Your task to perform on an android device: open app "Nova Launcher" (install if not already installed) and go to login screen Image 0: 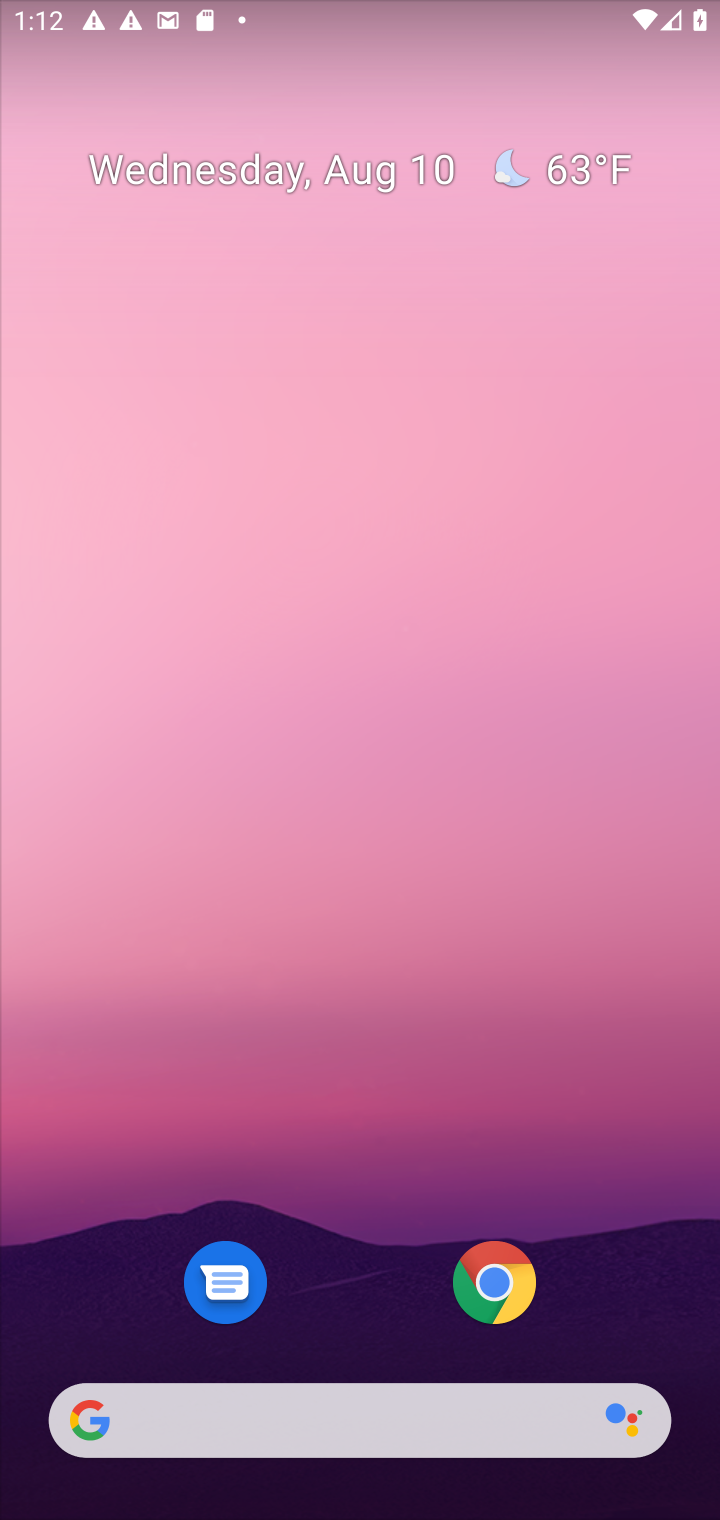
Step 0: drag from (314, 1268) to (389, 313)
Your task to perform on an android device: open app "Nova Launcher" (install if not already installed) and go to login screen Image 1: 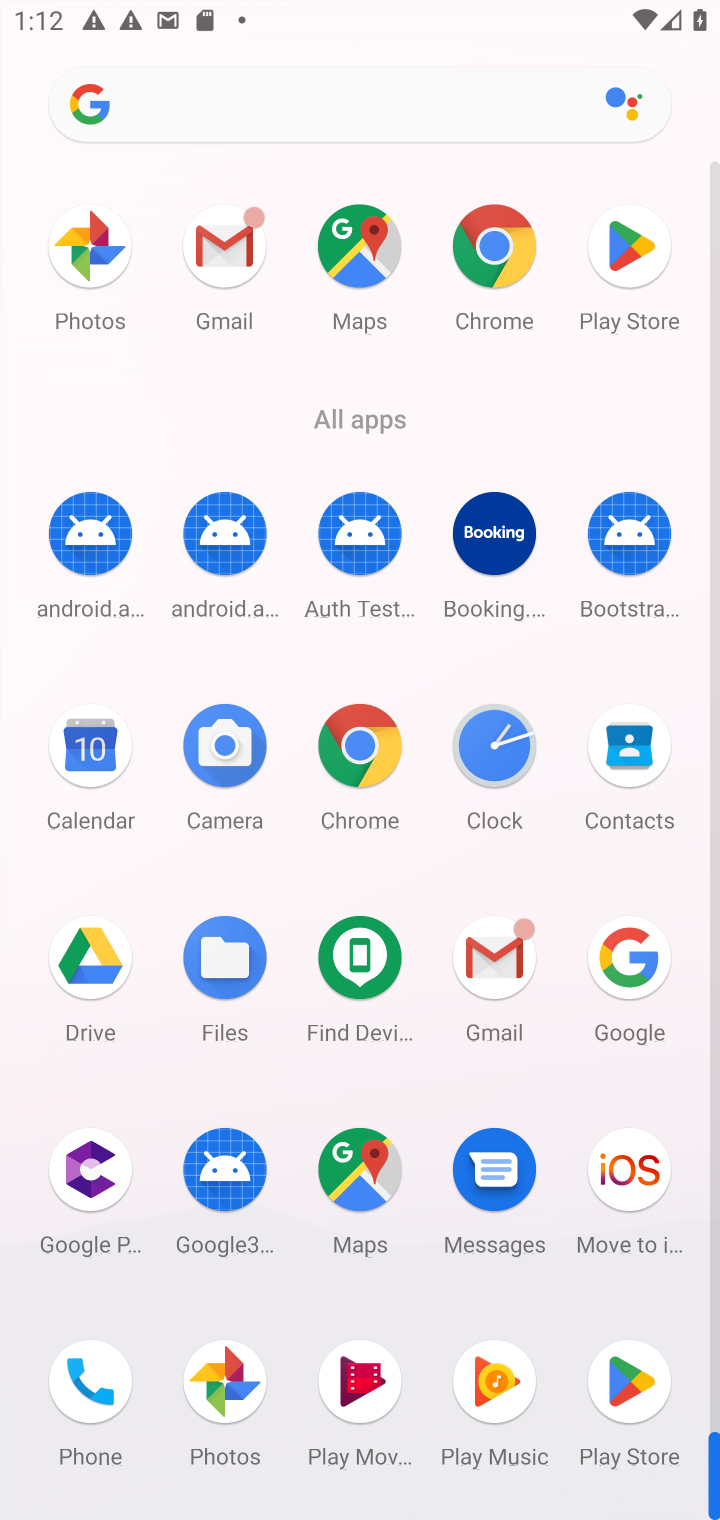
Step 1: click (635, 1364)
Your task to perform on an android device: open app "Nova Launcher" (install if not already installed) and go to login screen Image 2: 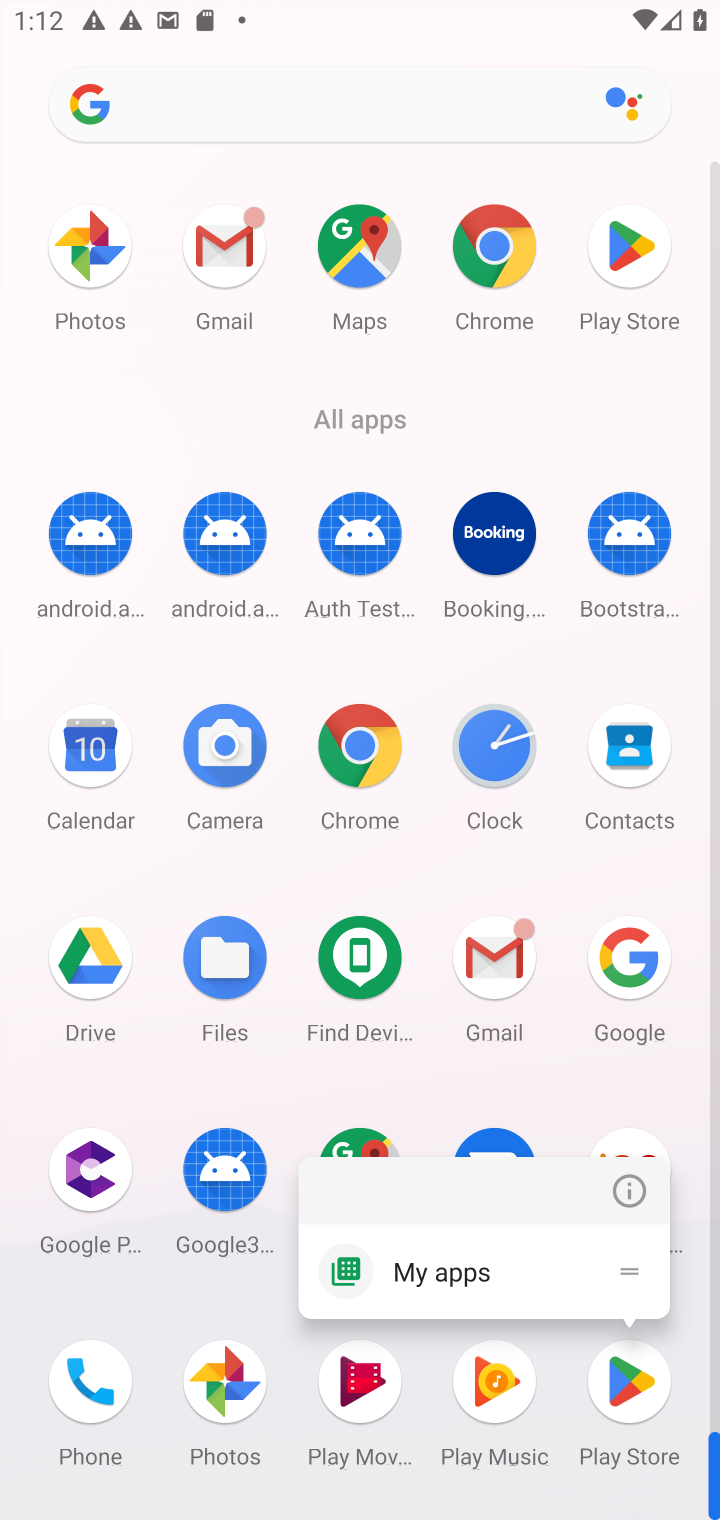
Step 2: click (626, 1384)
Your task to perform on an android device: open app "Nova Launcher" (install if not already installed) and go to login screen Image 3: 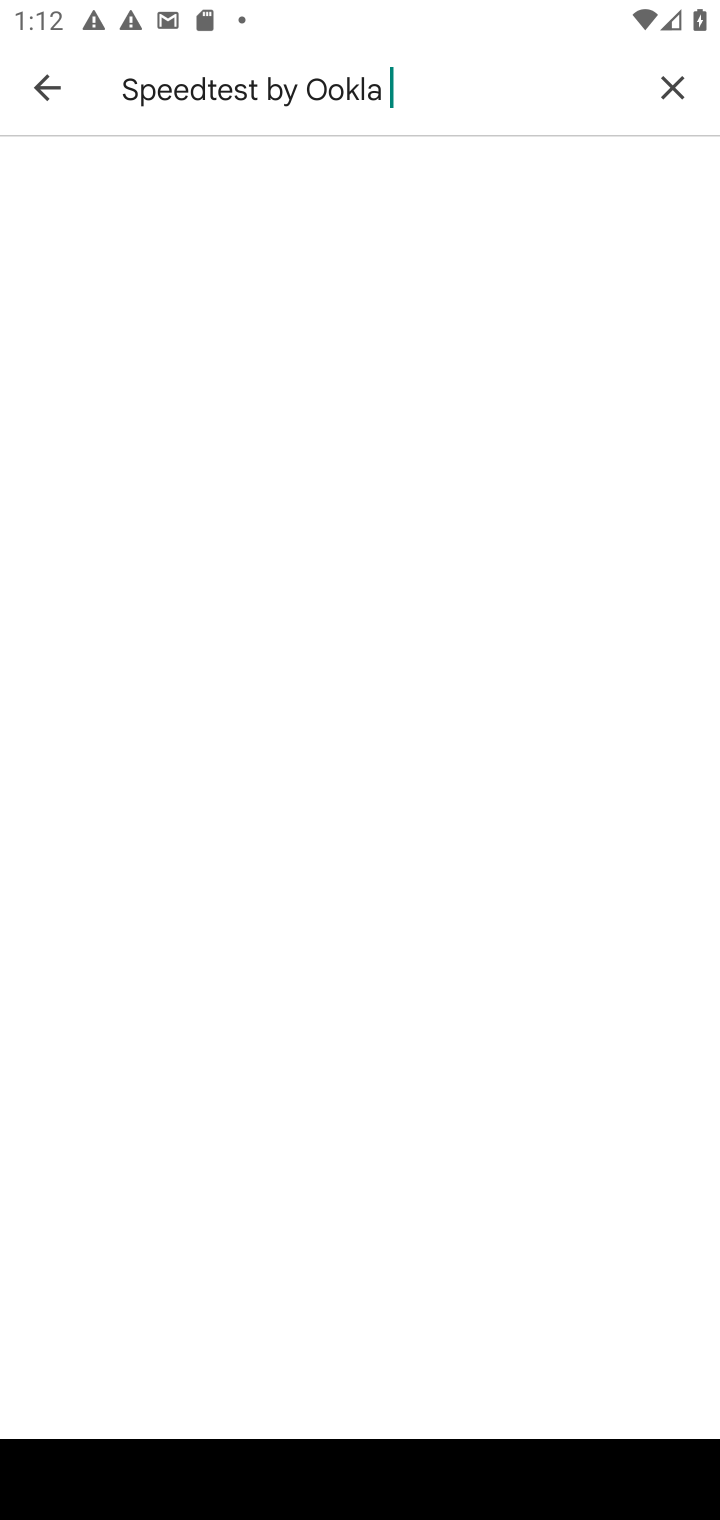
Step 3: click (649, 95)
Your task to perform on an android device: open app "Nova Launcher" (install if not already installed) and go to login screen Image 4: 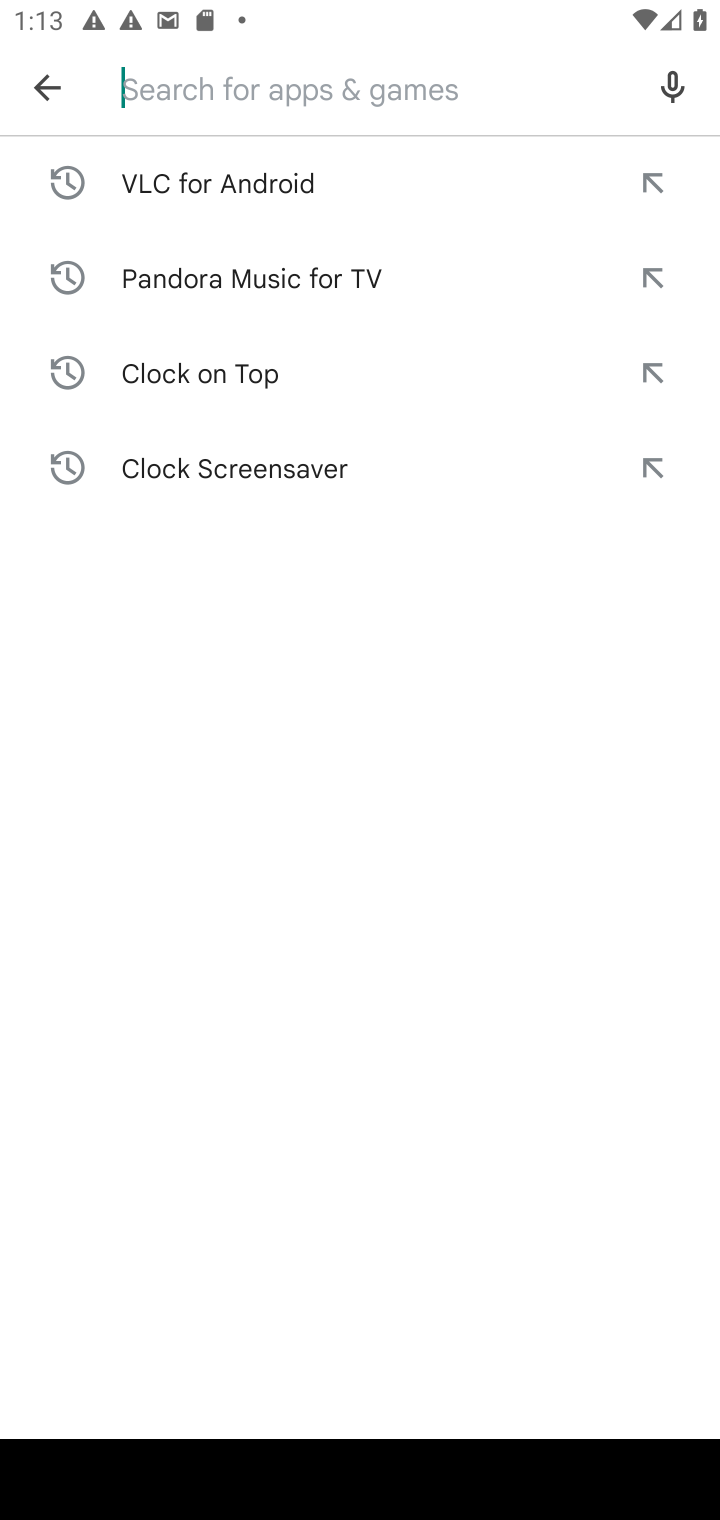
Step 4: click (442, 71)
Your task to perform on an android device: open app "Nova Launcher" (install if not already installed) and go to login screen Image 5: 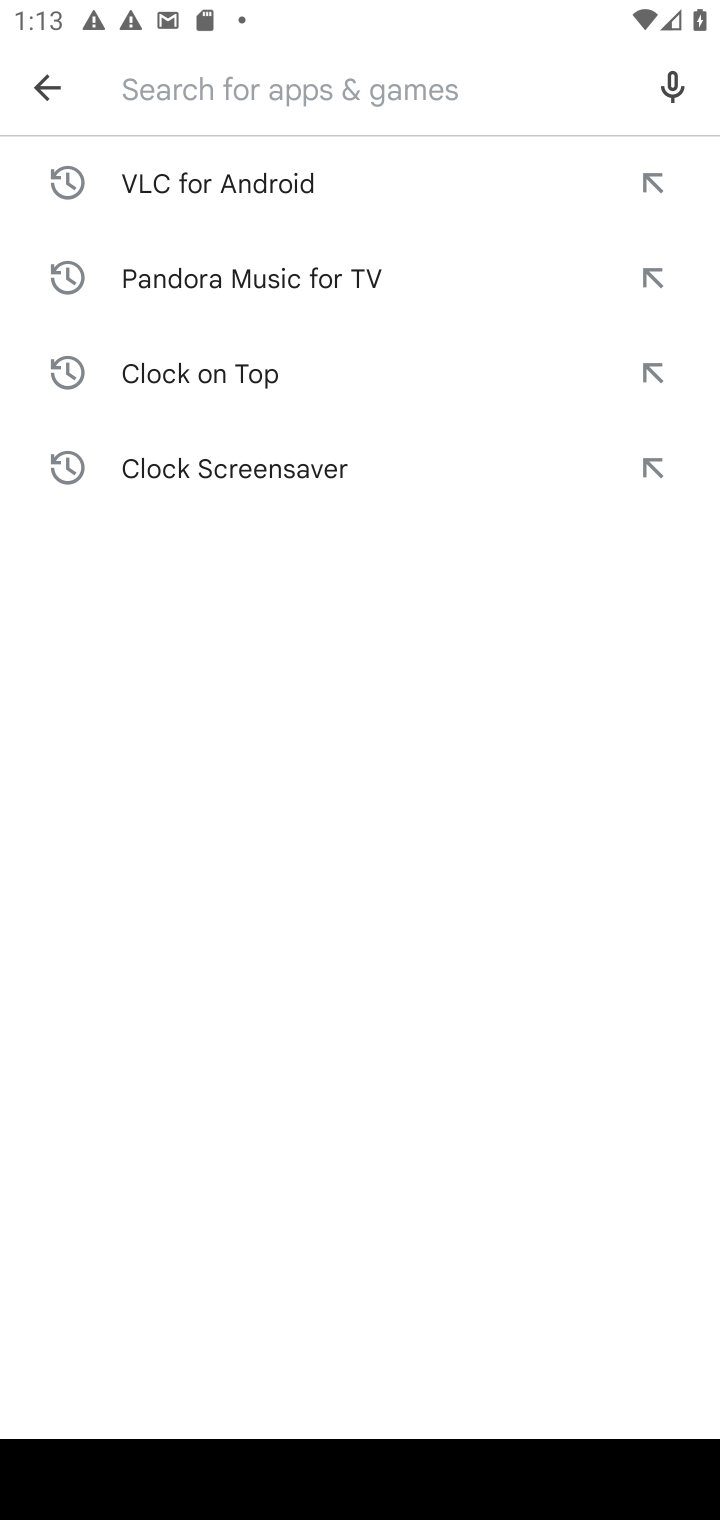
Step 5: type "Nova Launcher "
Your task to perform on an android device: open app "Nova Launcher" (install if not already installed) and go to login screen Image 6: 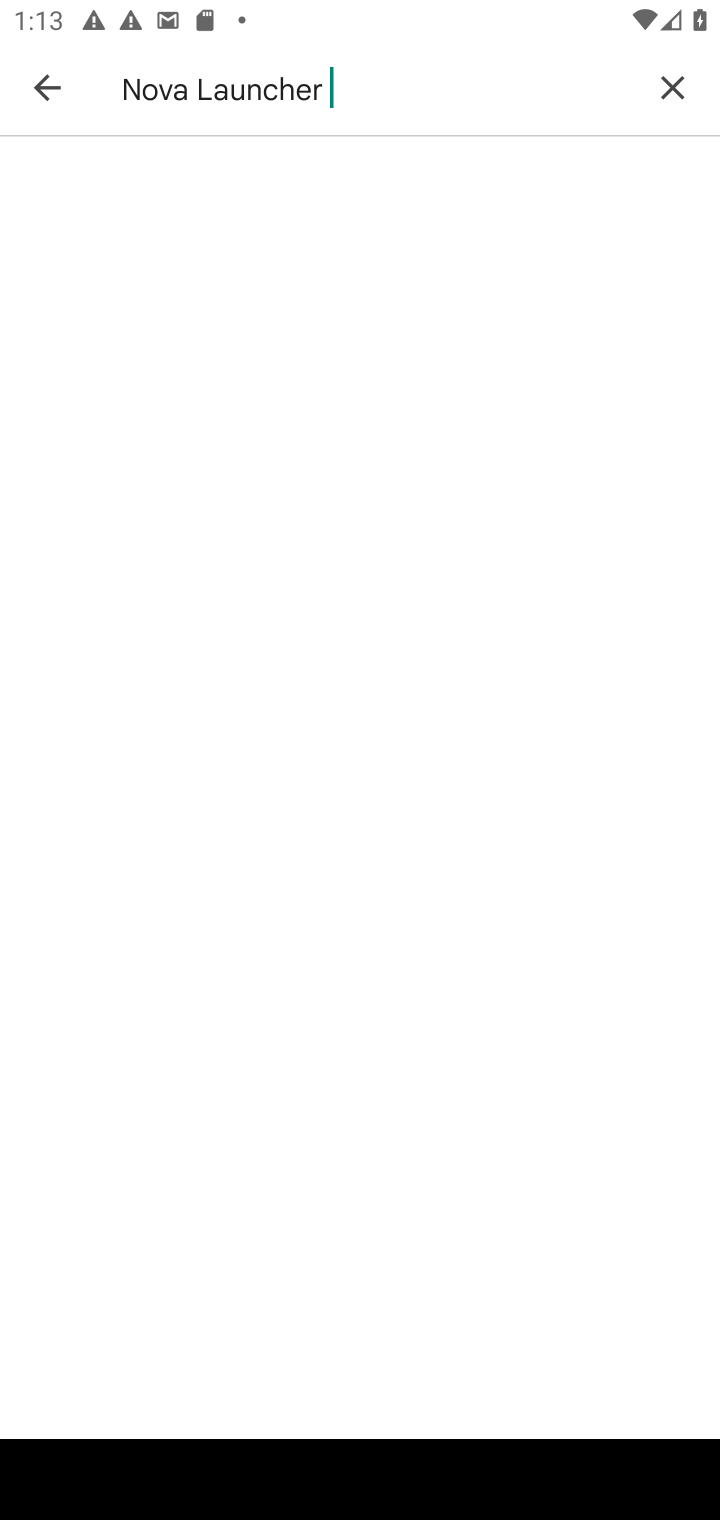
Step 6: click (474, 96)
Your task to perform on an android device: open app "Nova Launcher" (install if not already installed) and go to login screen Image 7: 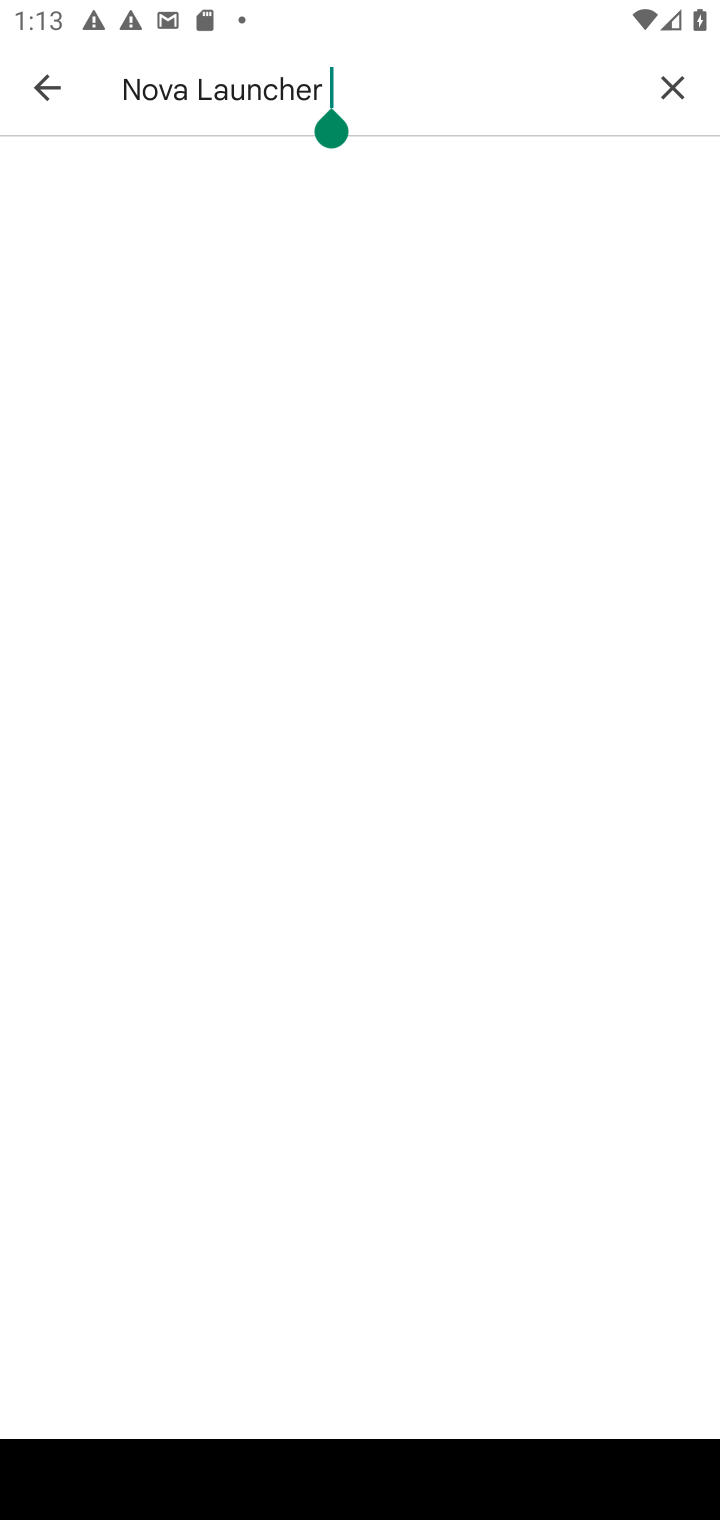
Step 7: click (396, 272)
Your task to perform on an android device: open app "Nova Launcher" (install if not already installed) and go to login screen Image 8: 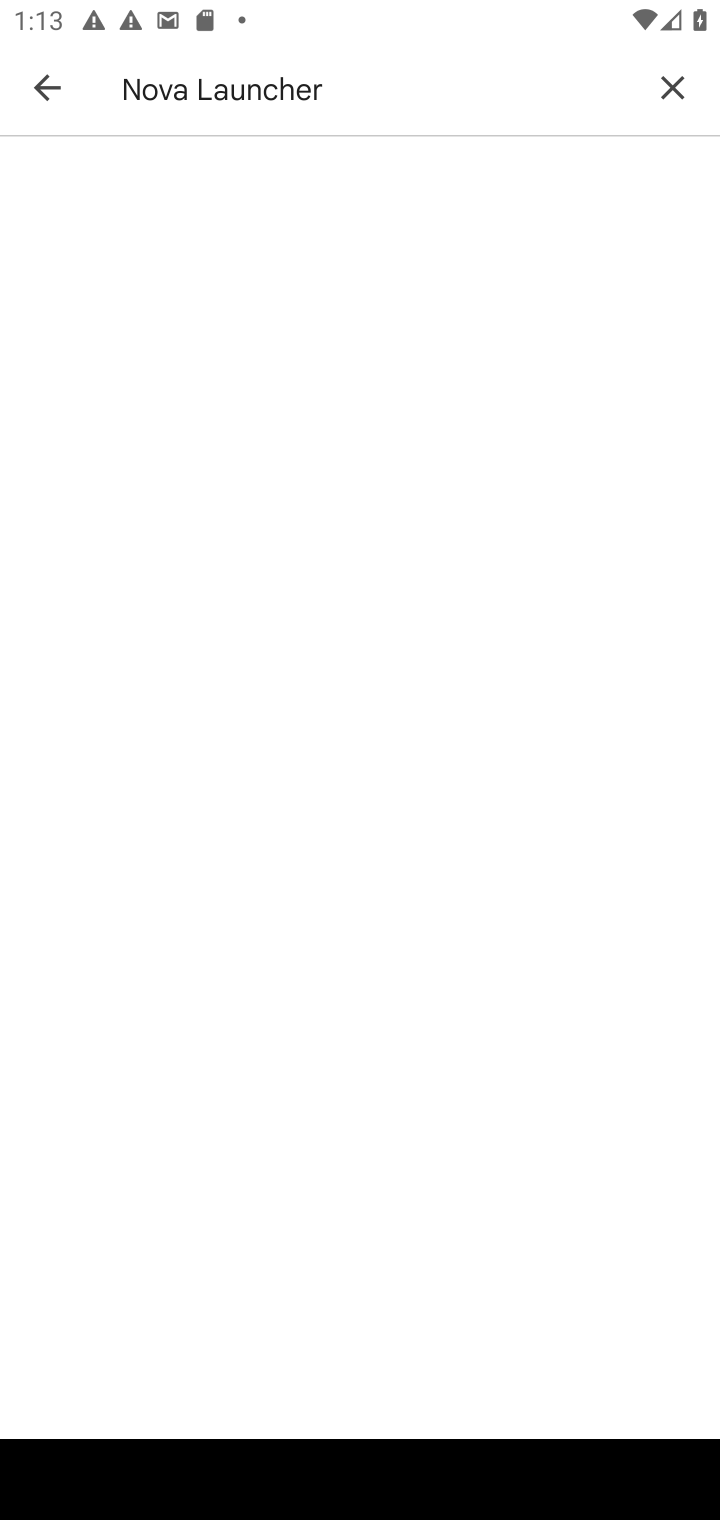
Step 8: task complete